Your task to perform on an android device: open app "McDonald's" (install if not already installed) Image 0: 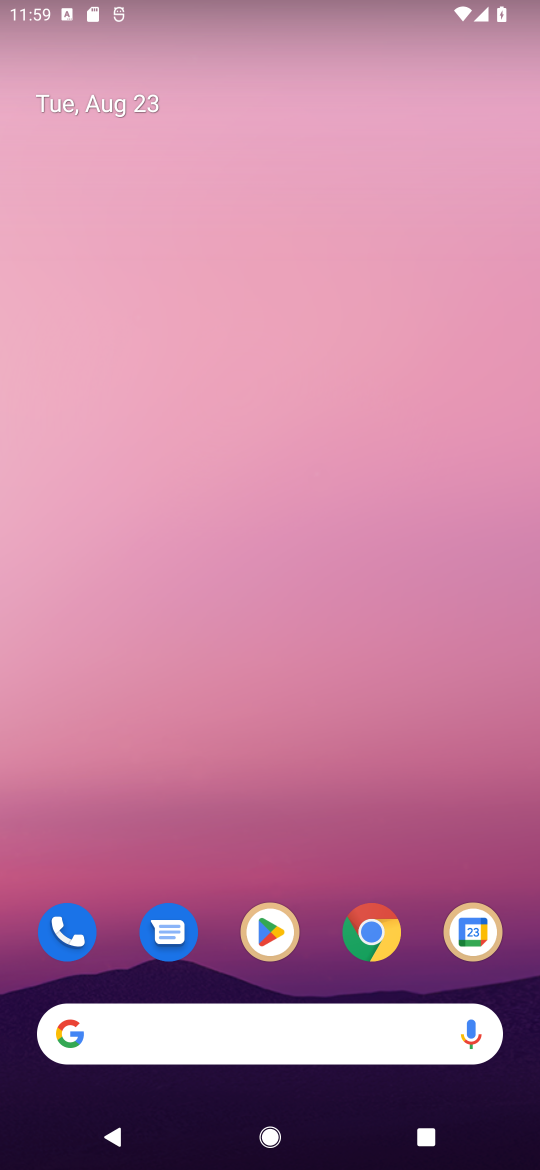
Step 0: click (284, 925)
Your task to perform on an android device: open app "McDonald's" (install if not already installed) Image 1: 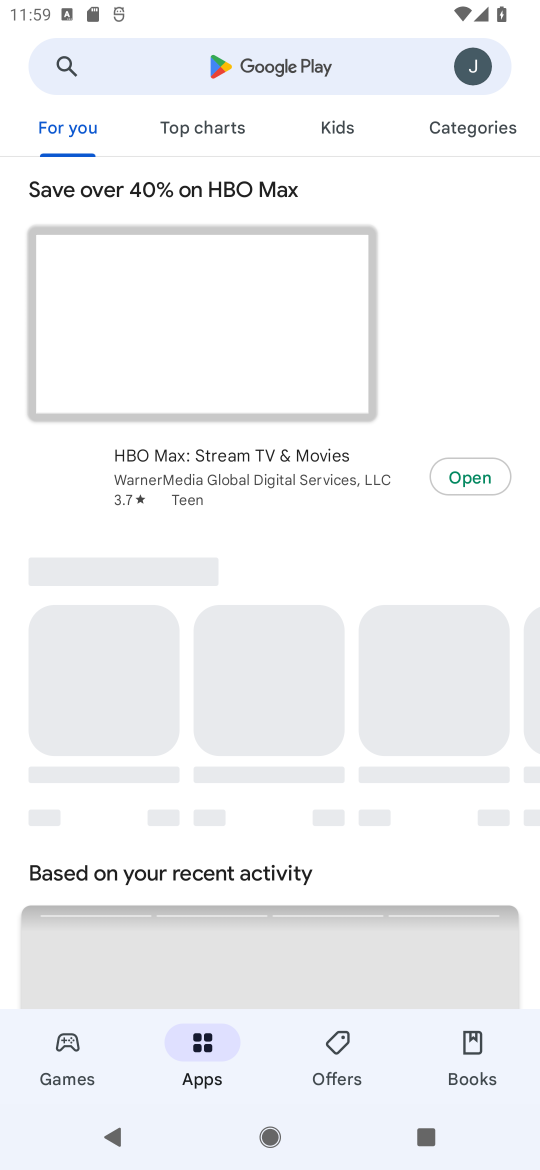
Step 1: click (302, 78)
Your task to perform on an android device: open app "McDonald's" (install if not already installed) Image 2: 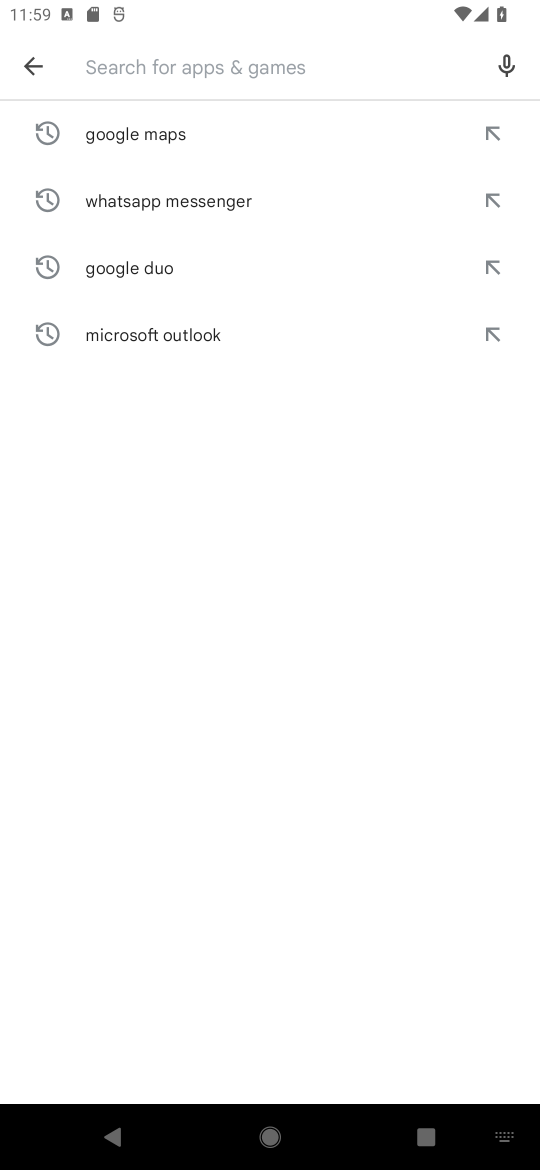
Step 2: type "McDonald's"
Your task to perform on an android device: open app "McDonald's" (install if not already installed) Image 3: 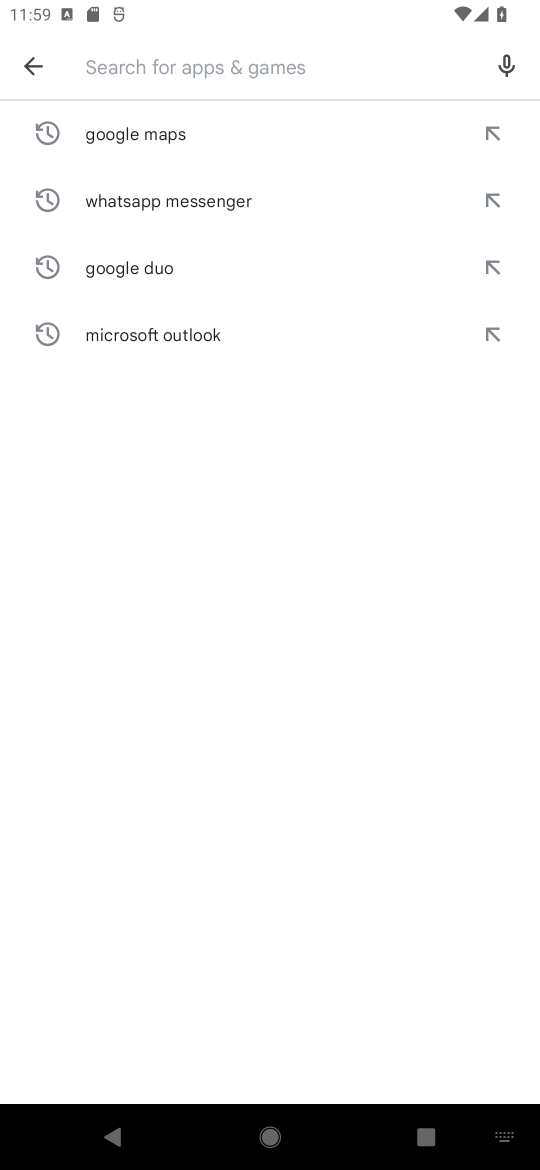
Step 3: click (329, 751)
Your task to perform on an android device: open app "McDonald's" (install if not already installed) Image 4: 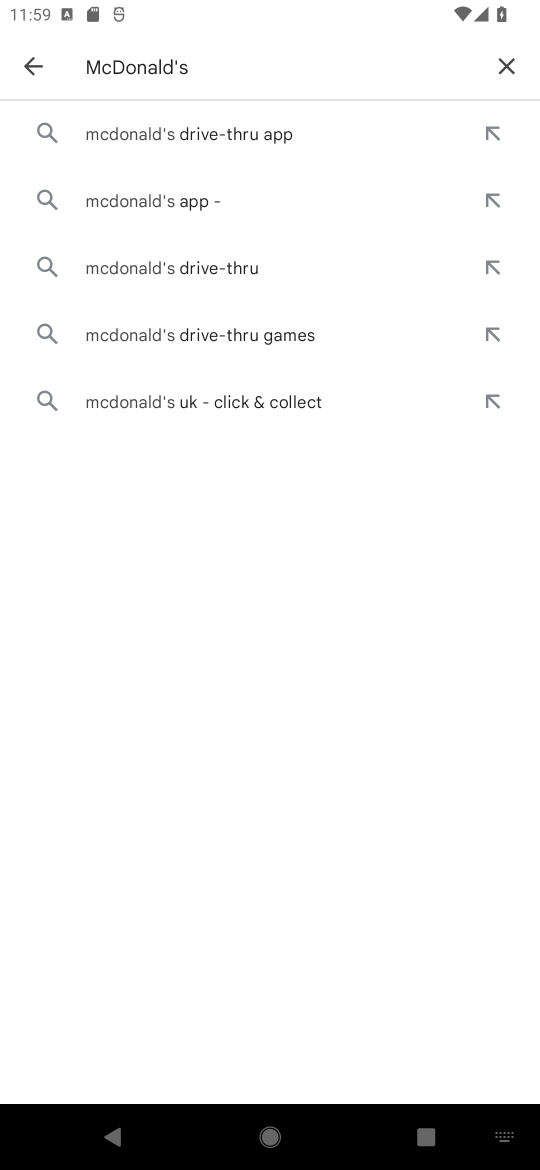
Step 4: click (152, 196)
Your task to perform on an android device: open app "McDonald's" (install if not already installed) Image 5: 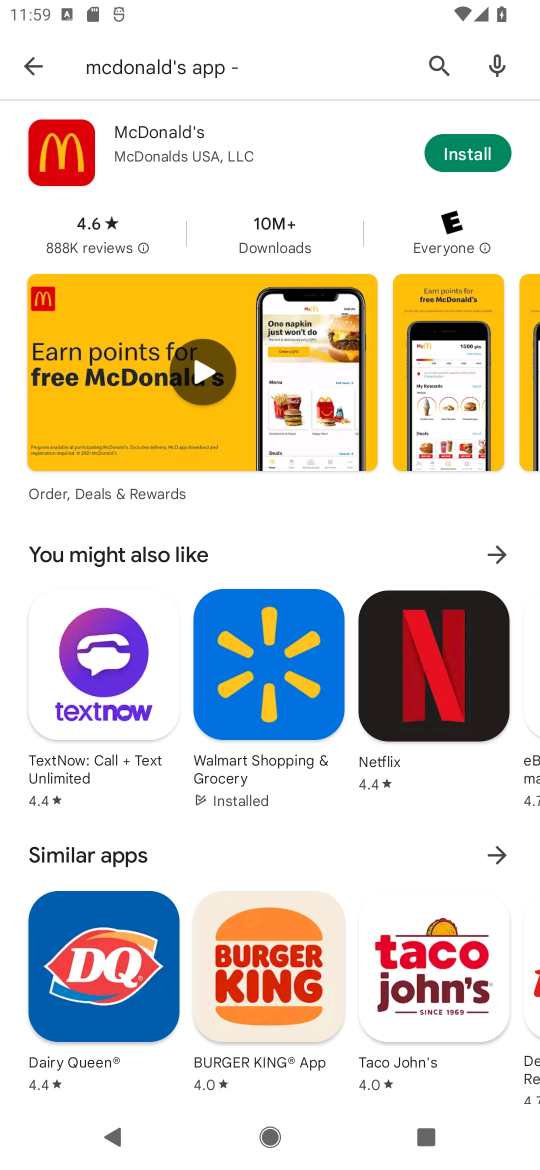
Step 5: click (457, 152)
Your task to perform on an android device: open app "McDonald's" (install if not already installed) Image 6: 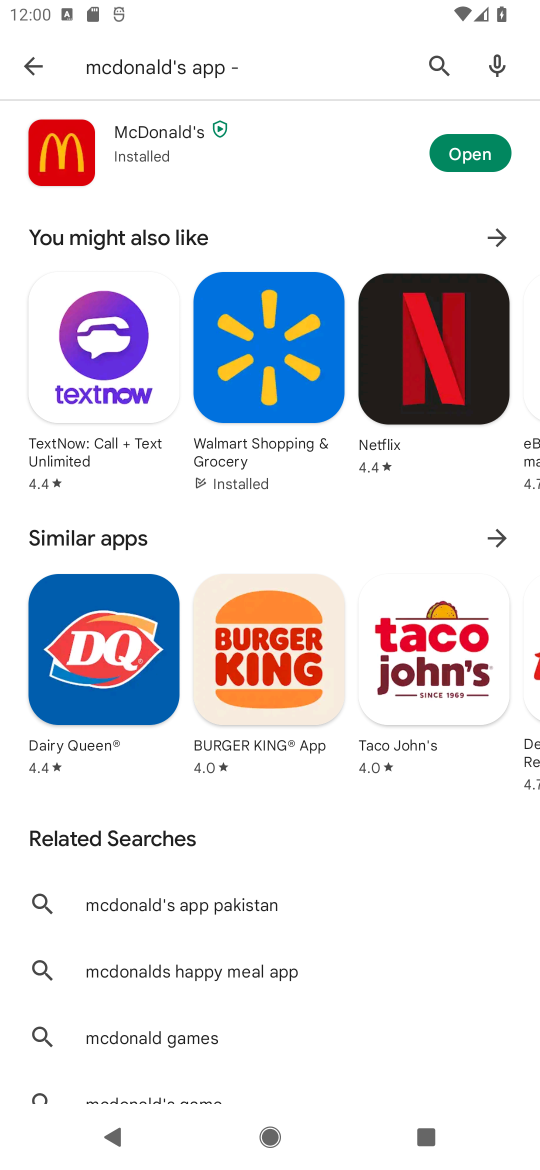
Step 6: click (473, 156)
Your task to perform on an android device: open app "McDonald's" (install if not already installed) Image 7: 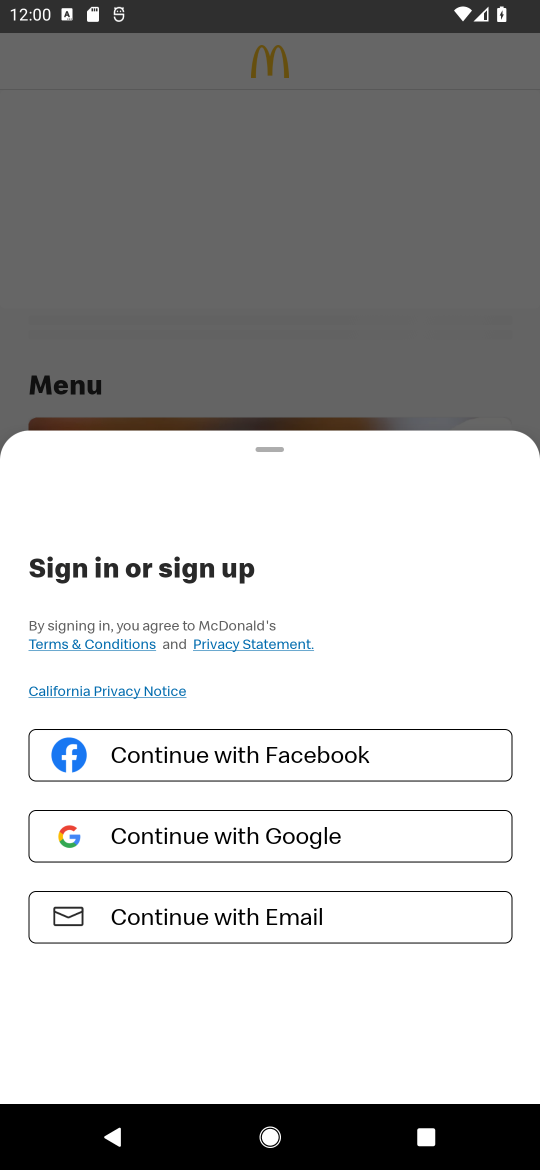
Step 7: task complete